Your task to perform on an android device: Open Google Maps Image 0: 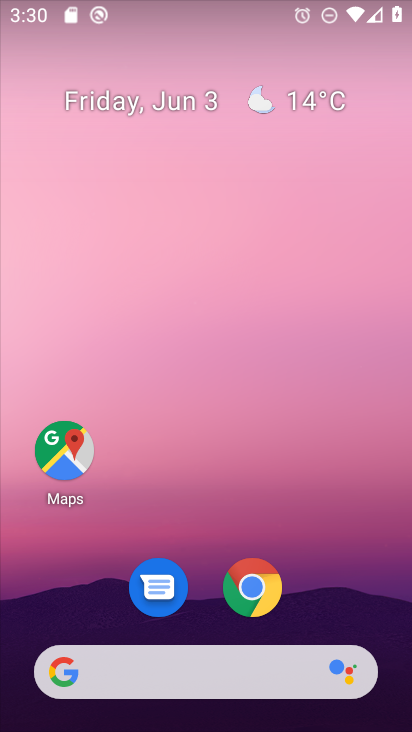
Step 0: drag from (227, 708) to (226, 135)
Your task to perform on an android device: Open Google Maps Image 1: 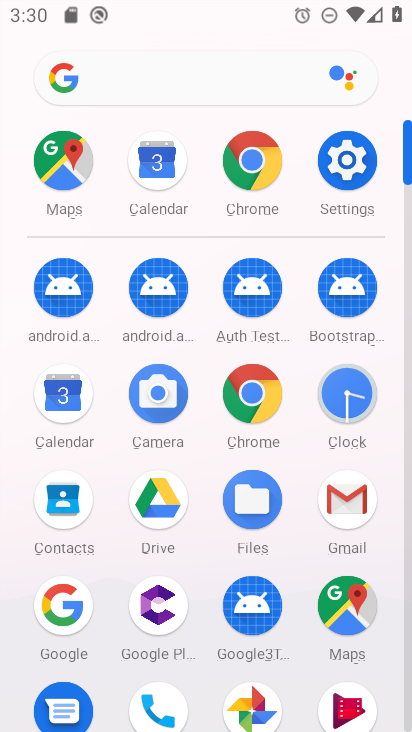
Step 1: click (353, 600)
Your task to perform on an android device: Open Google Maps Image 2: 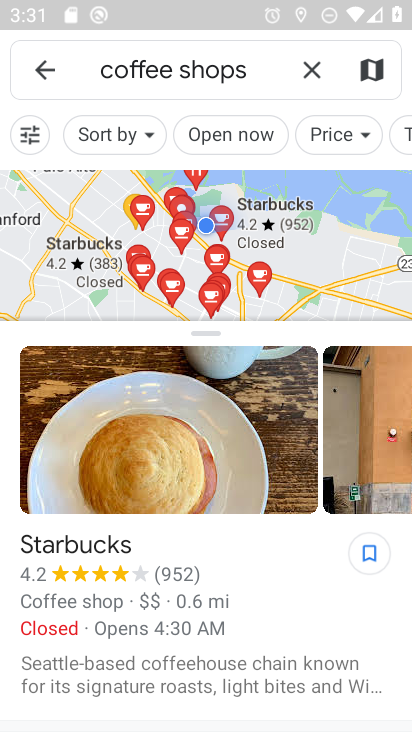
Step 2: task complete